Your task to perform on an android device: change the clock display to digital Image 0: 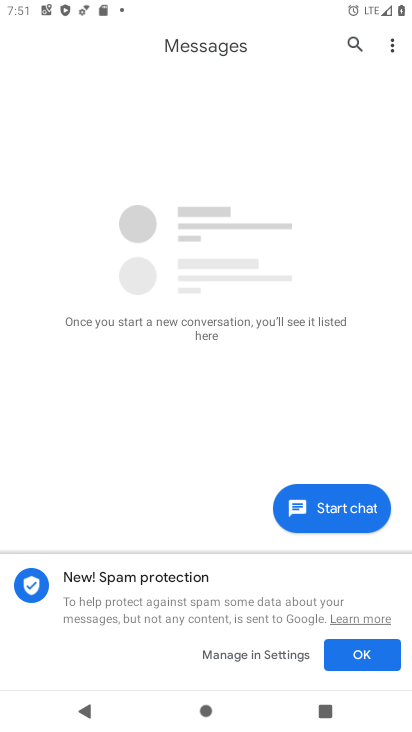
Step 0: press home button
Your task to perform on an android device: change the clock display to digital Image 1: 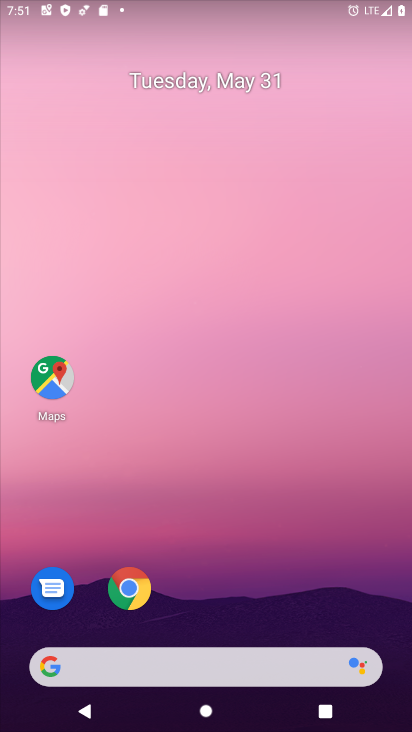
Step 1: drag from (212, 619) to (277, 279)
Your task to perform on an android device: change the clock display to digital Image 2: 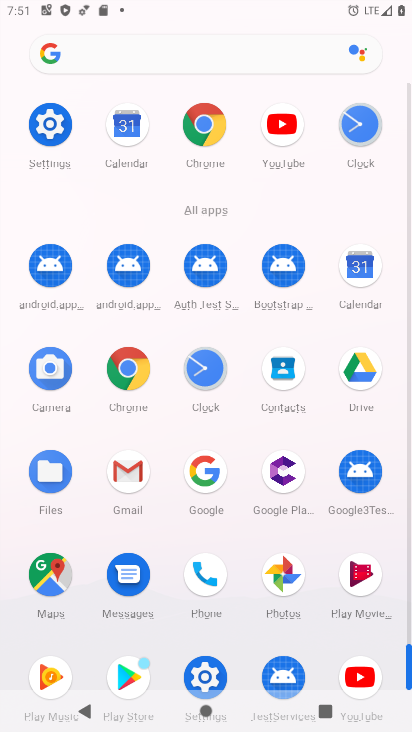
Step 2: click (196, 375)
Your task to perform on an android device: change the clock display to digital Image 3: 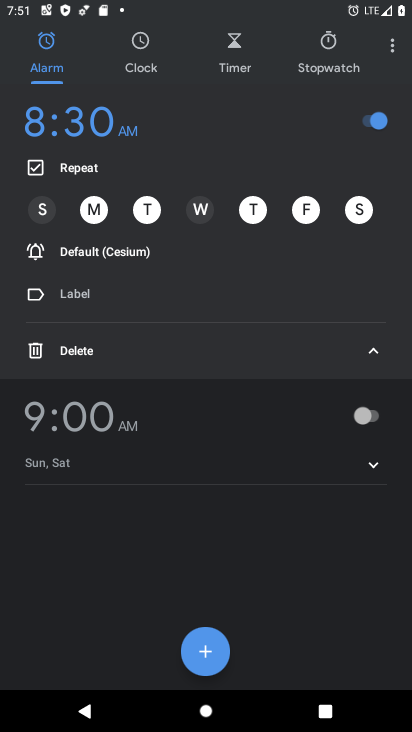
Step 3: click (132, 71)
Your task to perform on an android device: change the clock display to digital Image 4: 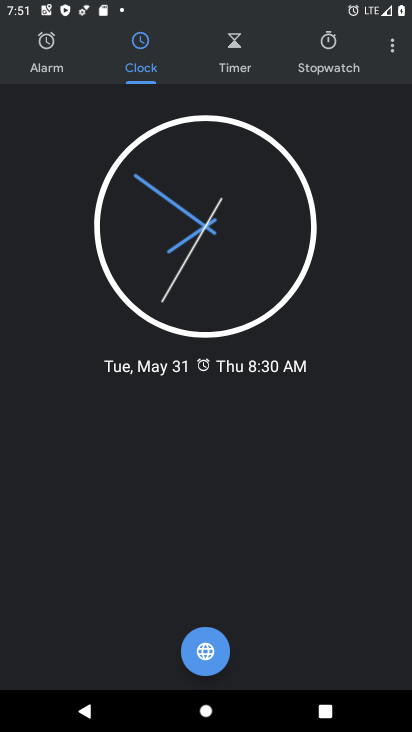
Step 4: click (378, 45)
Your task to perform on an android device: change the clock display to digital Image 5: 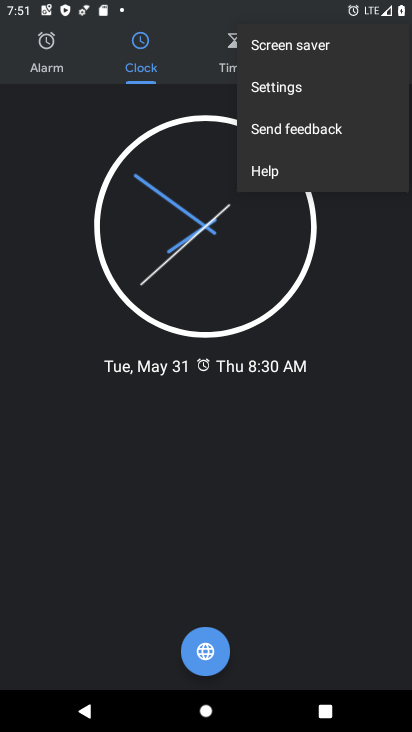
Step 5: click (294, 89)
Your task to perform on an android device: change the clock display to digital Image 6: 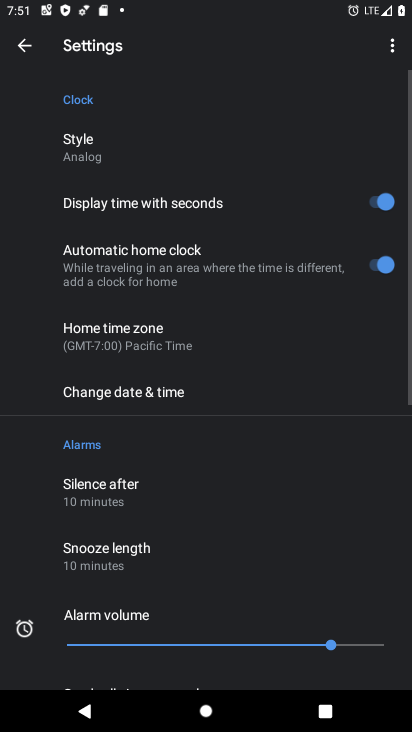
Step 6: click (130, 157)
Your task to perform on an android device: change the clock display to digital Image 7: 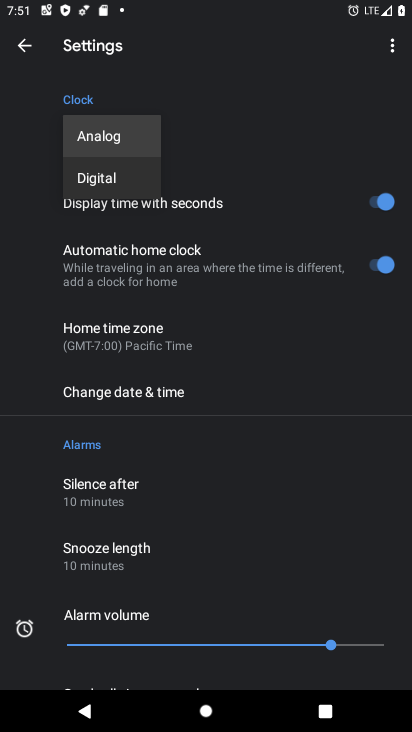
Step 7: click (120, 175)
Your task to perform on an android device: change the clock display to digital Image 8: 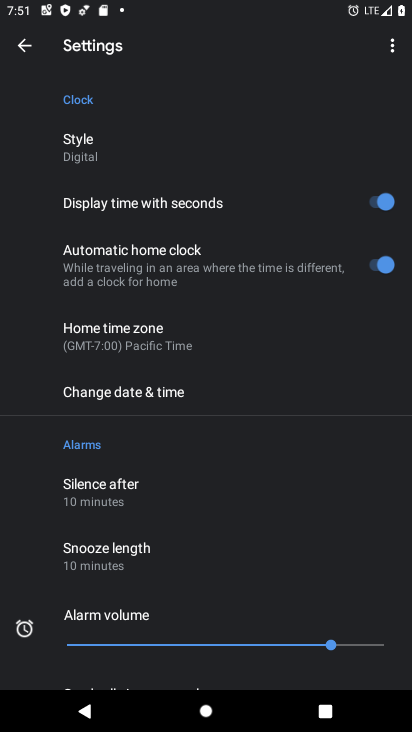
Step 8: task complete